Your task to perform on an android device: check out phone information Image 0: 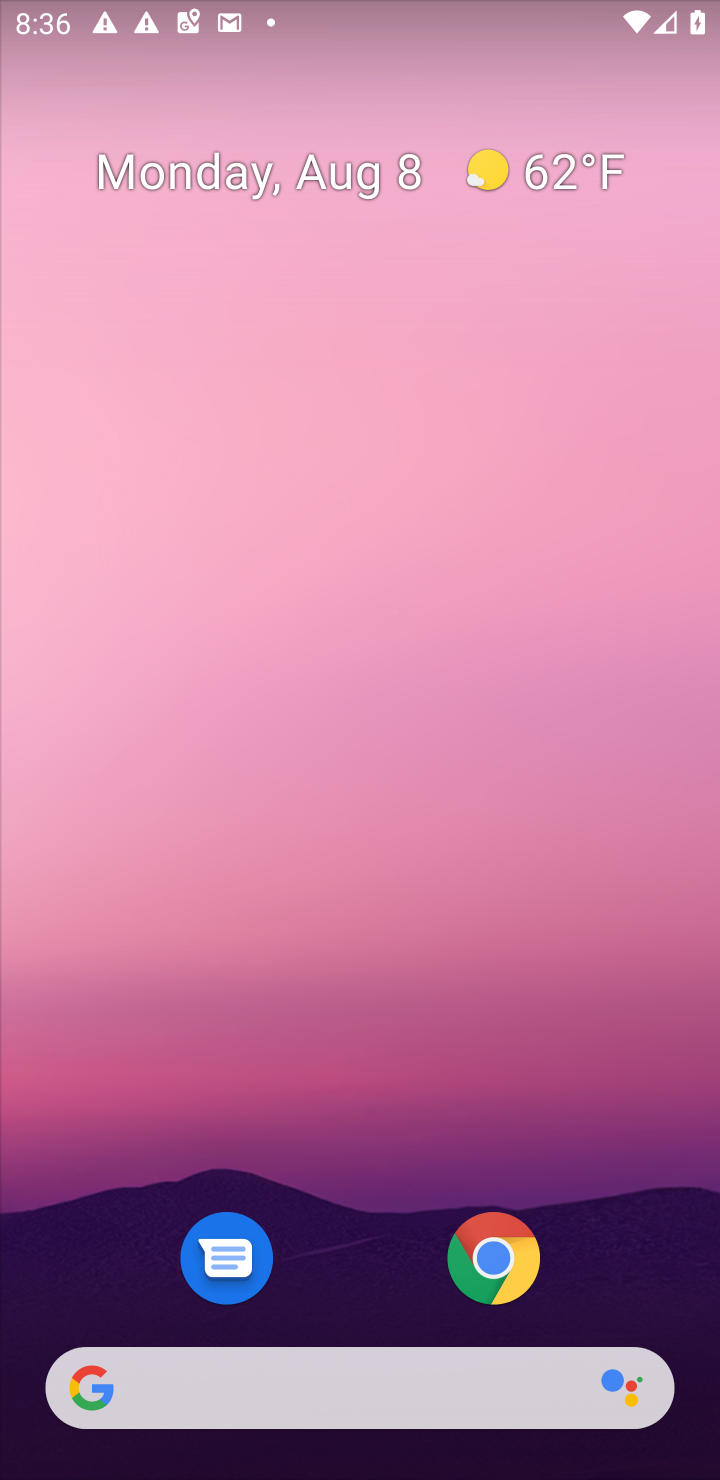
Step 0: drag from (457, 586) to (459, 457)
Your task to perform on an android device: check out phone information Image 1: 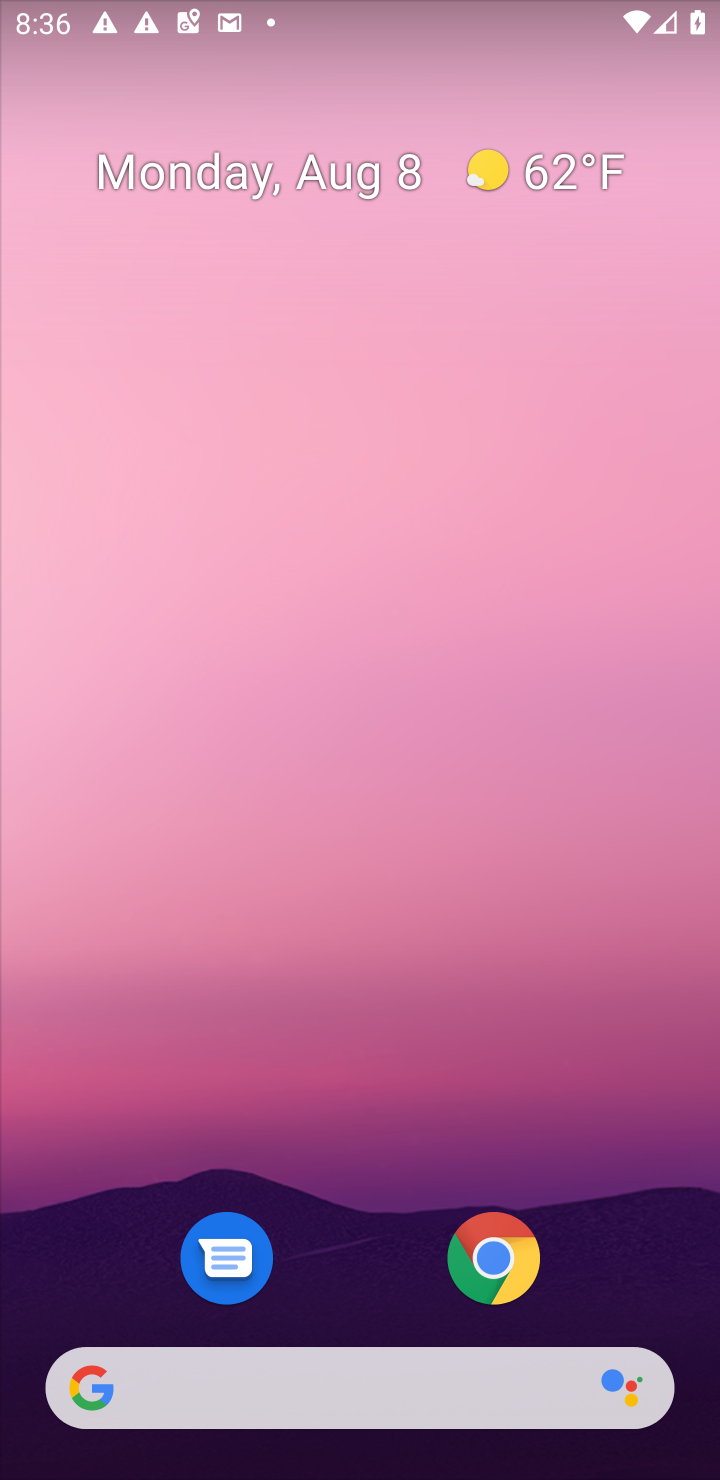
Step 1: drag from (409, 665) to (437, 15)
Your task to perform on an android device: check out phone information Image 2: 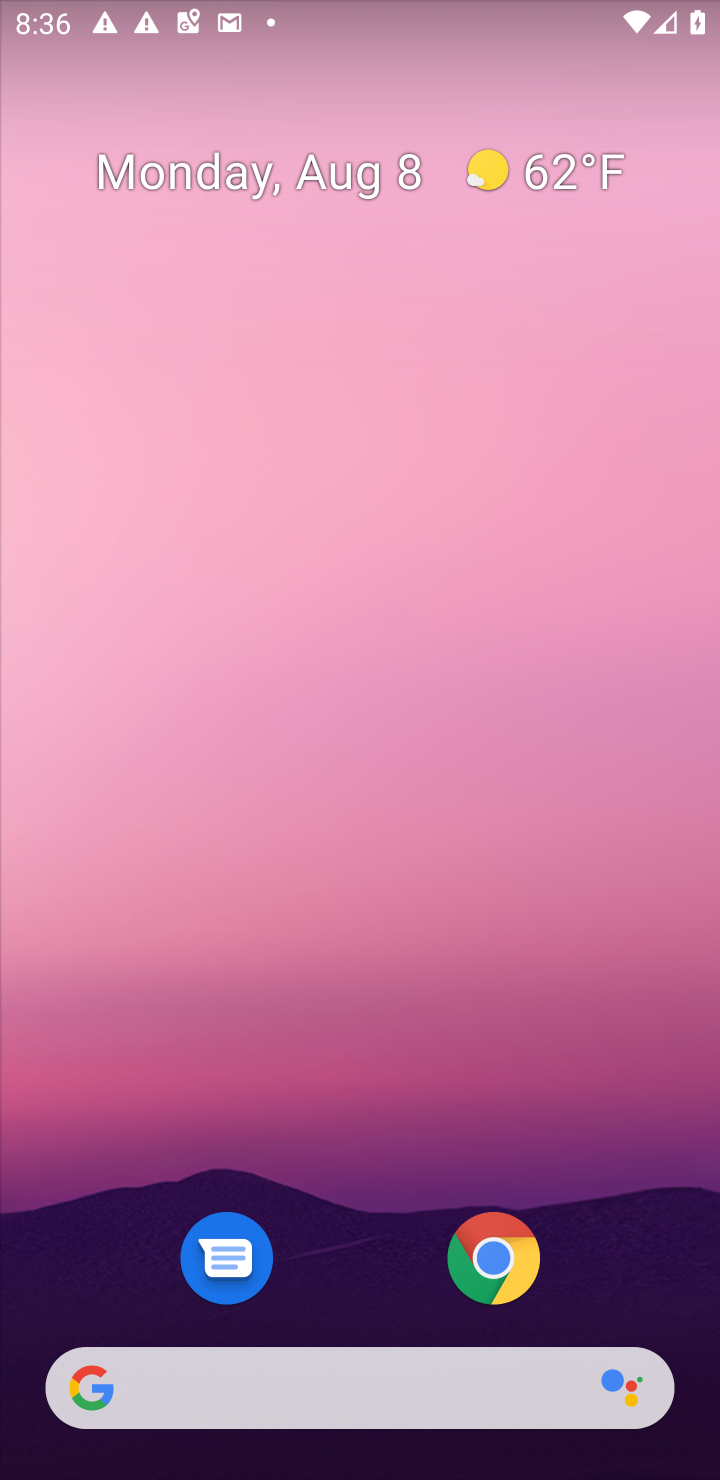
Step 2: drag from (371, 1093) to (429, 237)
Your task to perform on an android device: check out phone information Image 3: 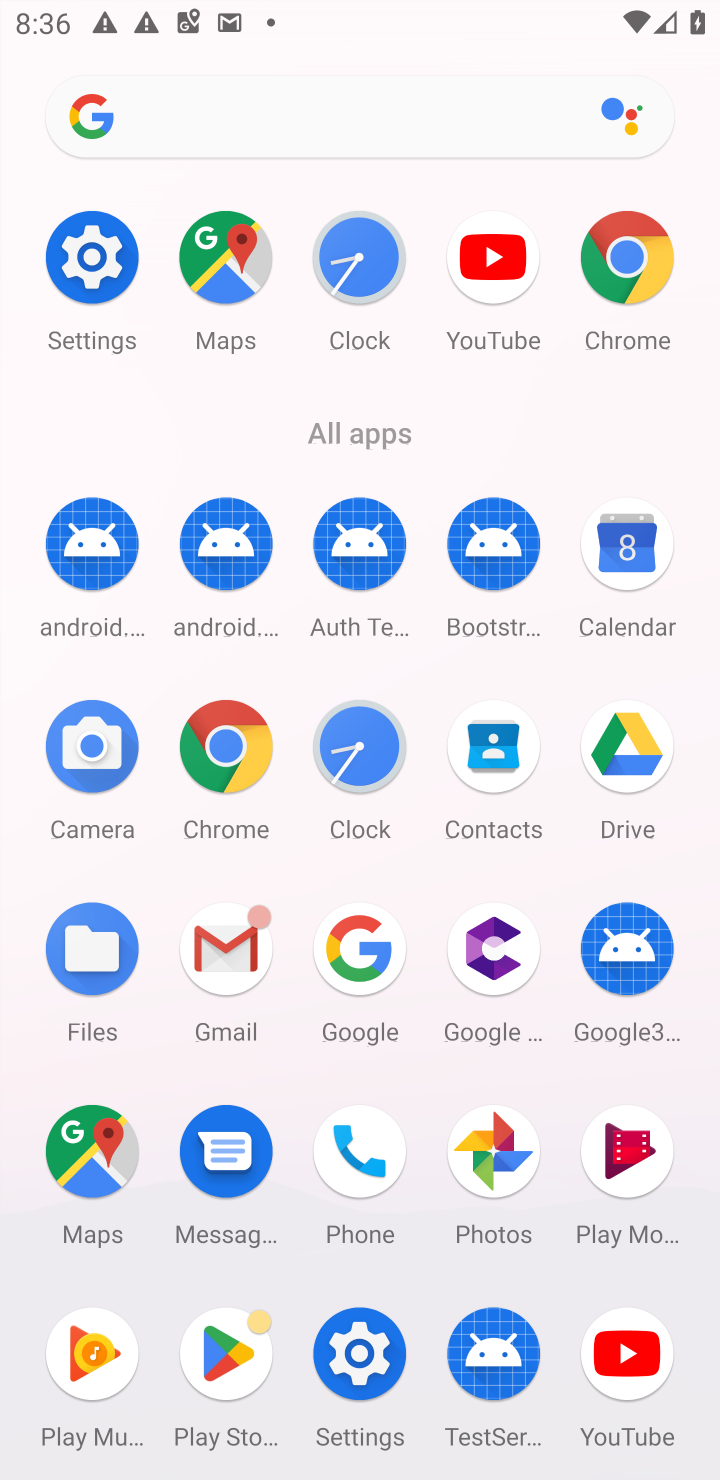
Step 3: click (95, 244)
Your task to perform on an android device: check out phone information Image 4: 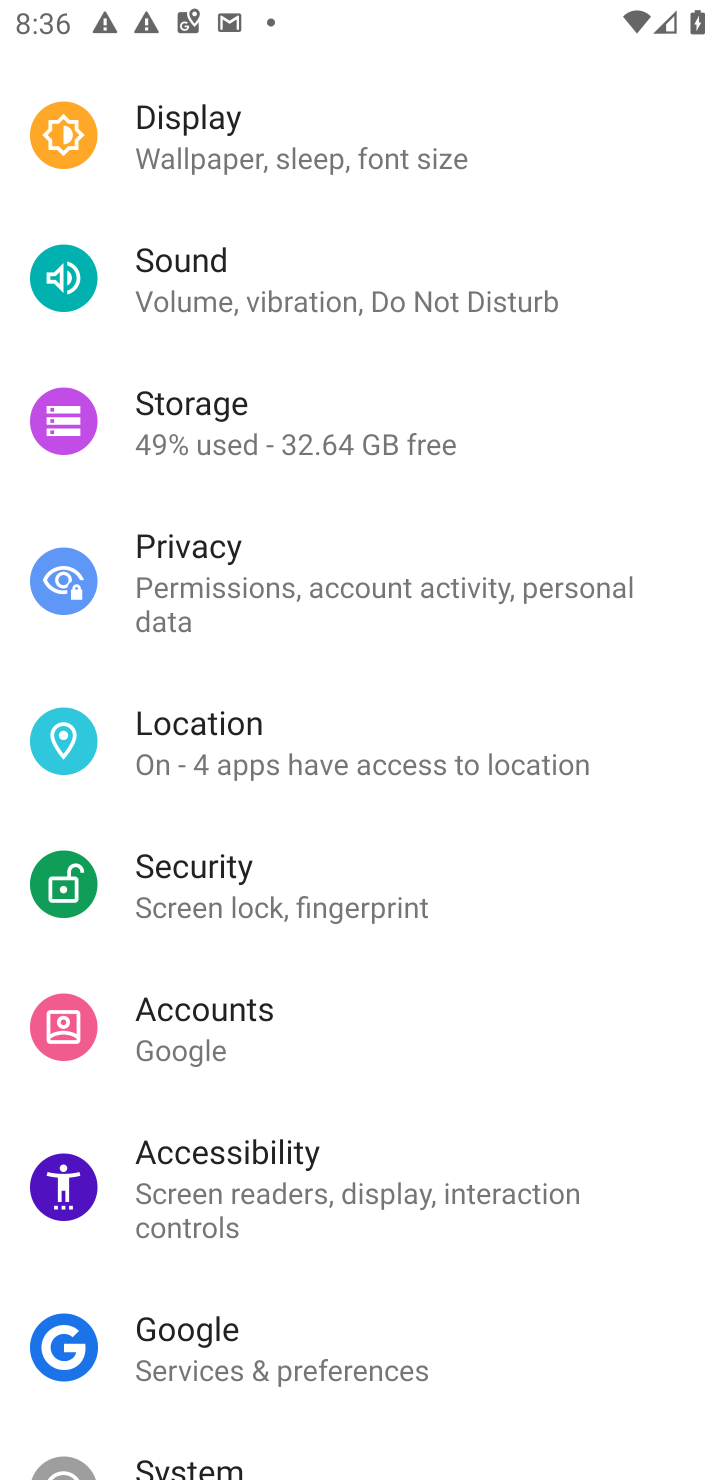
Step 4: task complete